Your task to perform on an android device: find snoozed emails in the gmail app Image 0: 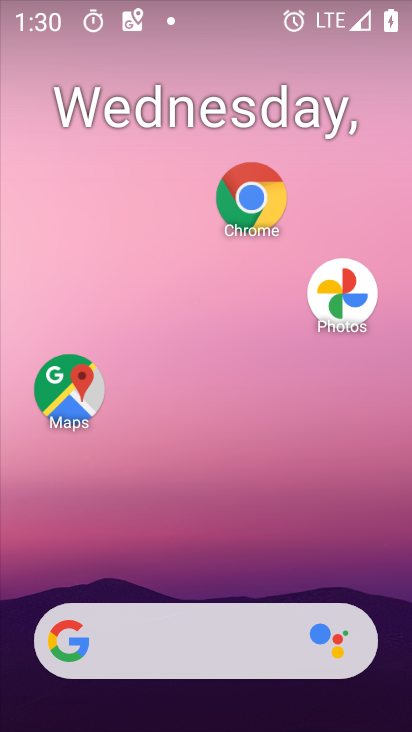
Step 0: drag from (239, 633) to (258, 5)
Your task to perform on an android device: find snoozed emails in the gmail app Image 1: 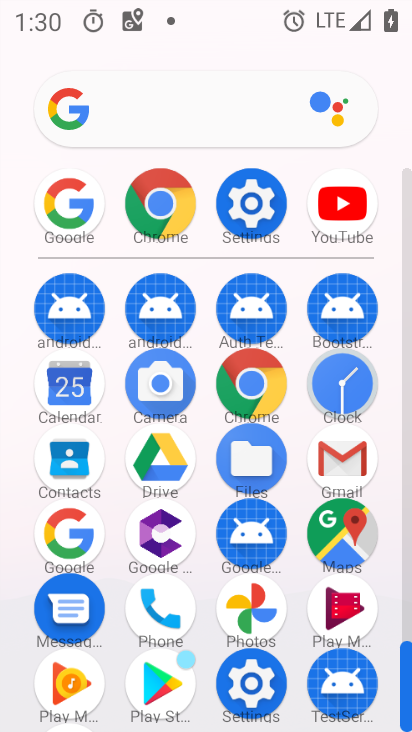
Step 1: click (337, 471)
Your task to perform on an android device: find snoozed emails in the gmail app Image 2: 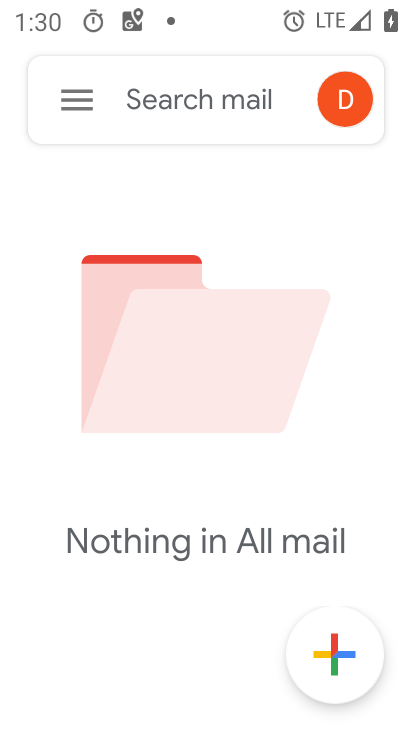
Step 2: click (85, 105)
Your task to perform on an android device: find snoozed emails in the gmail app Image 3: 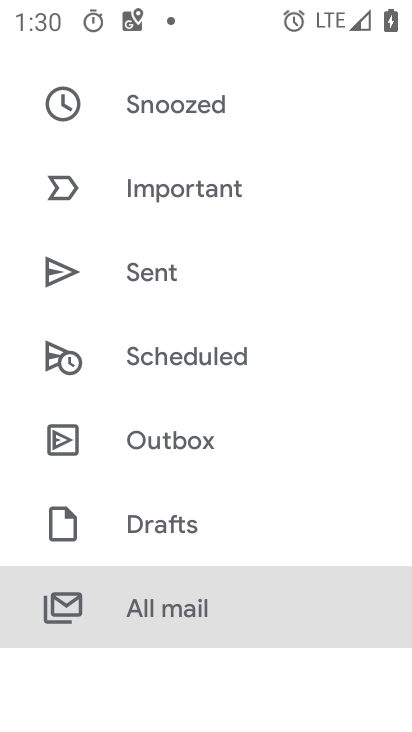
Step 3: drag from (87, 187) to (125, 502)
Your task to perform on an android device: find snoozed emails in the gmail app Image 4: 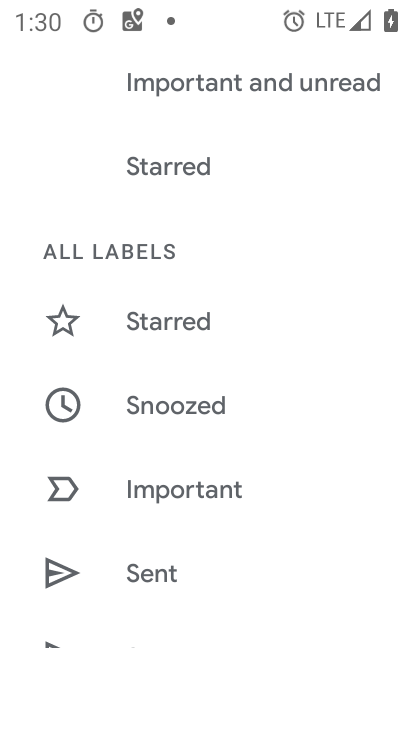
Step 4: click (142, 372)
Your task to perform on an android device: find snoozed emails in the gmail app Image 5: 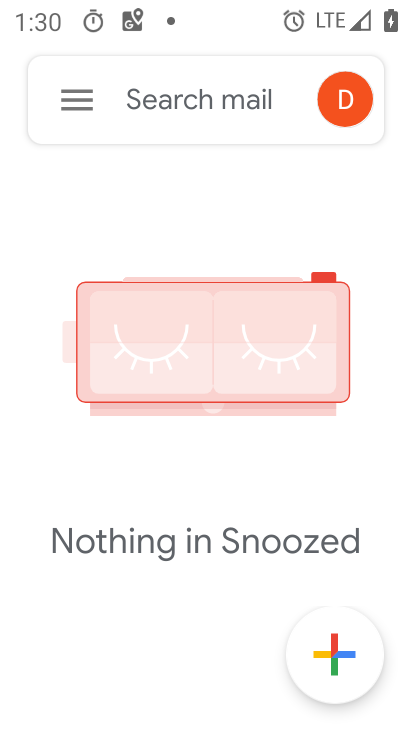
Step 5: task complete